Your task to perform on an android device: delete location history Image 0: 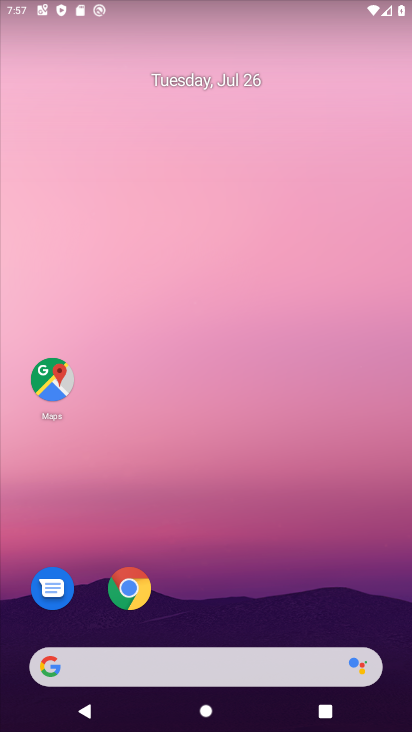
Step 0: drag from (278, 537) to (282, 91)
Your task to perform on an android device: delete location history Image 1: 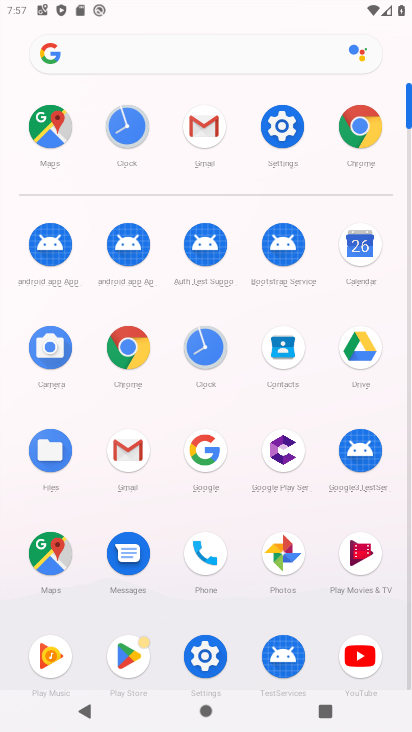
Step 1: click (286, 130)
Your task to perform on an android device: delete location history Image 2: 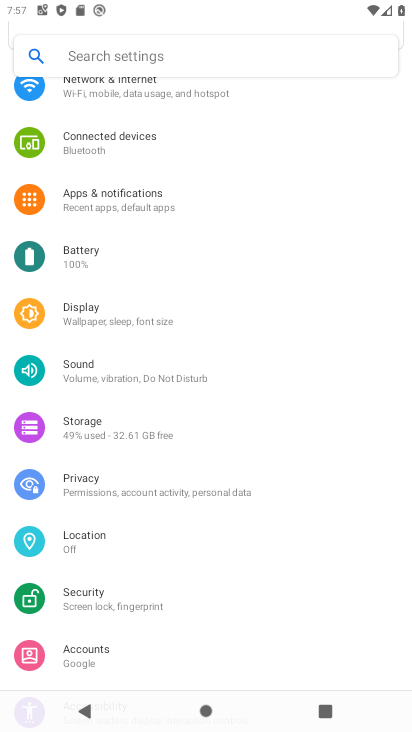
Step 2: click (118, 526)
Your task to perform on an android device: delete location history Image 3: 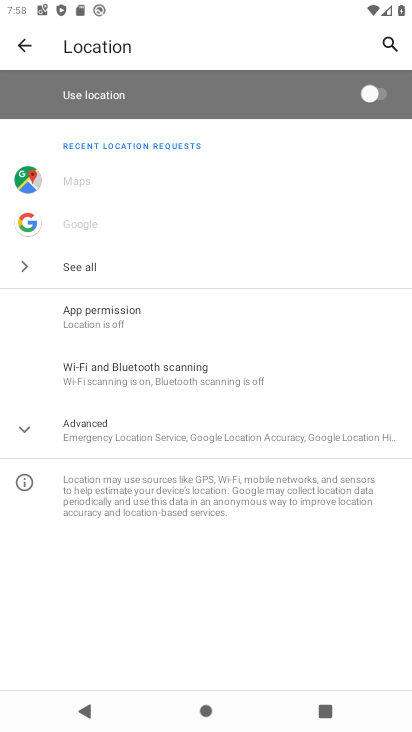
Step 3: task complete